Your task to perform on an android device: Open my contact list Image 0: 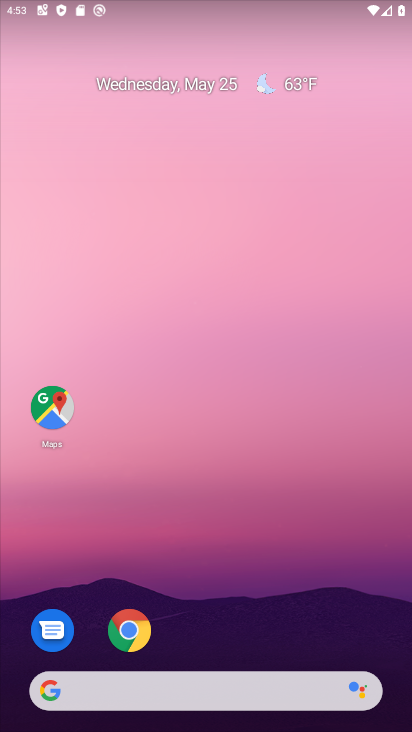
Step 0: drag from (206, 587) to (279, 51)
Your task to perform on an android device: Open my contact list Image 1: 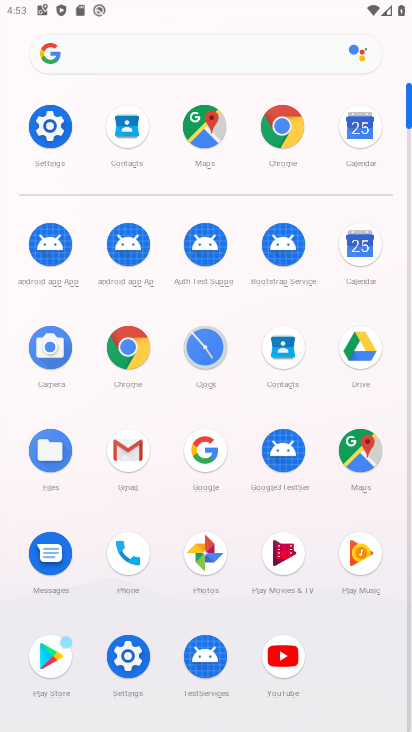
Step 1: click (274, 358)
Your task to perform on an android device: Open my contact list Image 2: 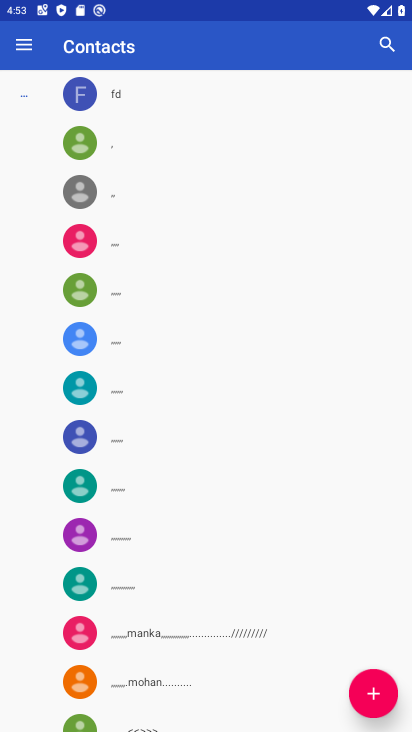
Step 2: click (368, 698)
Your task to perform on an android device: Open my contact list Image 3: 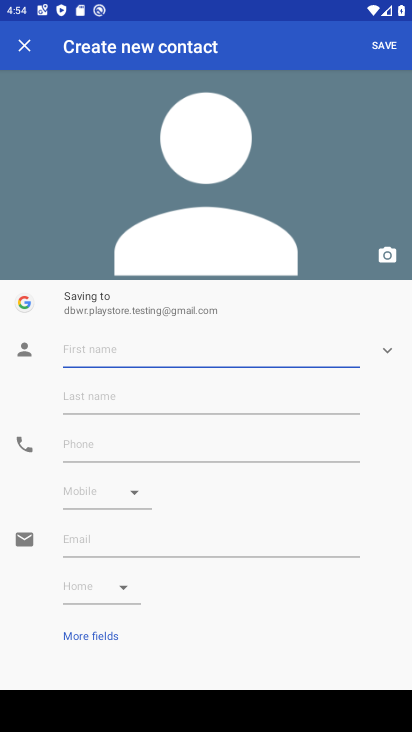
Step 3: type "gggg"
Your task to perform on an android device: Open my contact list Image 4: 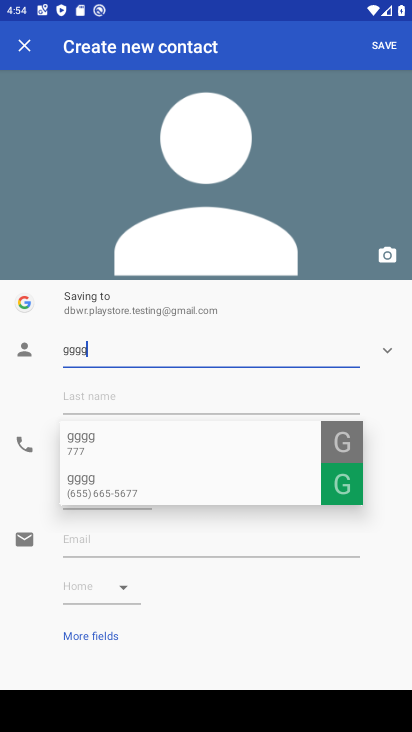
Step 4: click (113, 445)
Your task to perform on an android device: Open my contact list Image 5: 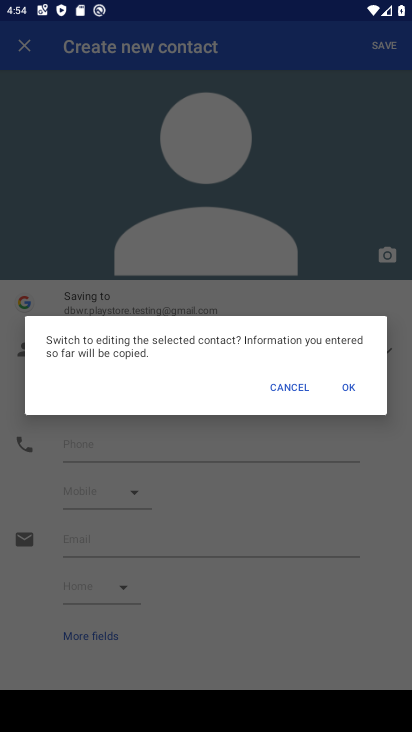
Step 5: click (347, 381)
Your task to perform on an android device: Open my contact list Image 6: 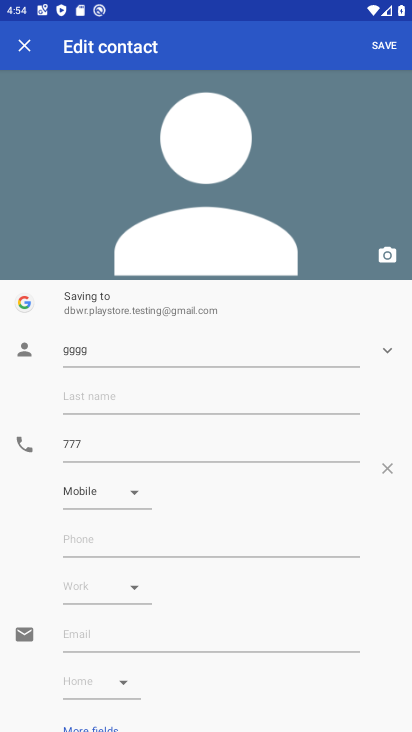
Step 6: click (384, 42)
Your task to perform on an android device: Open my contact list Image 7: 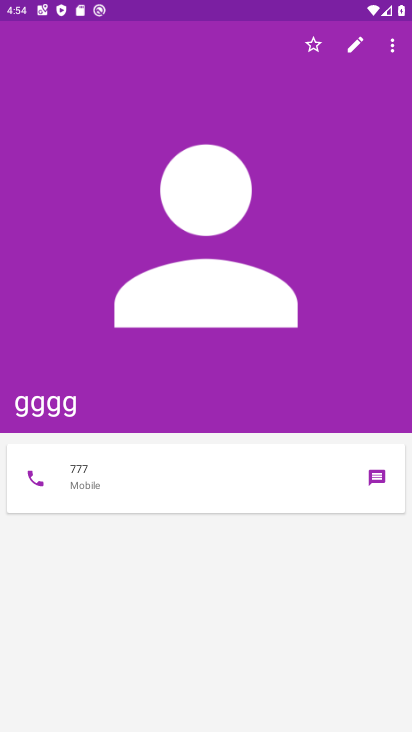
Step 7: task complete